Your task to perform on an android device: visit the assistant section in the google photos Image 0: 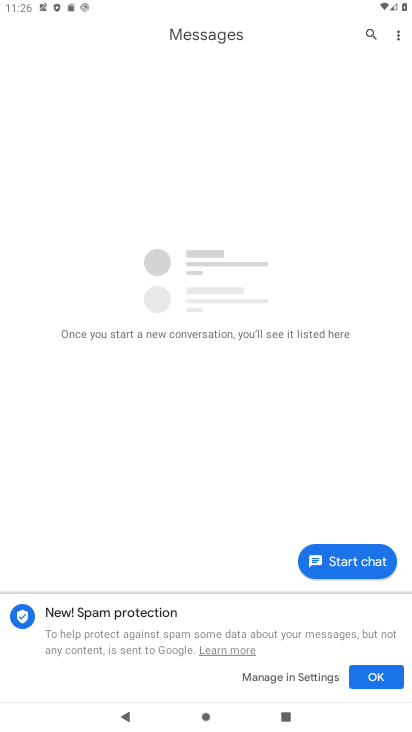
Step 0: press home button
Your task to perform on an android device: visit the assistant section in the google photos Image 1: 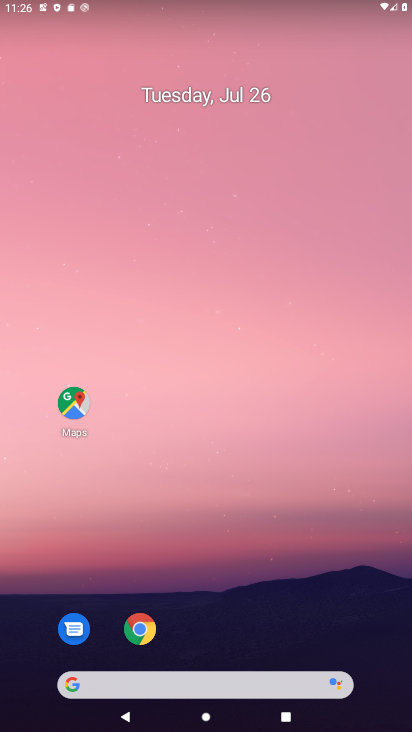
Step 1: drag from (276, 624) to (252, 95)
Your task to perform on an android device: visit the assistant section in the google photos Image 2: 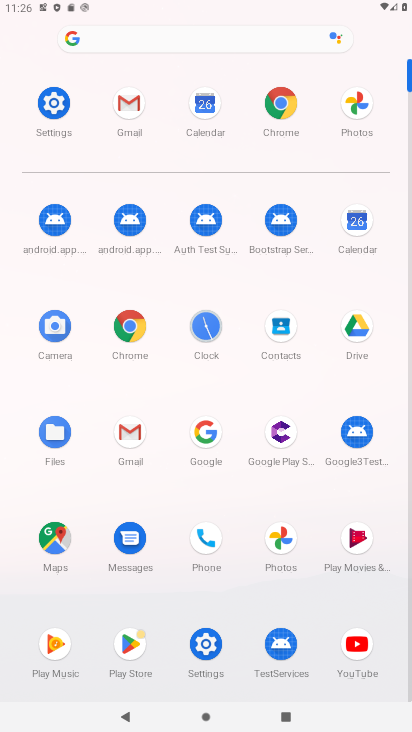
Step 2: click (288, 569)
Your task to perform on an android device: visit the assistant section in the google photos Image 3: 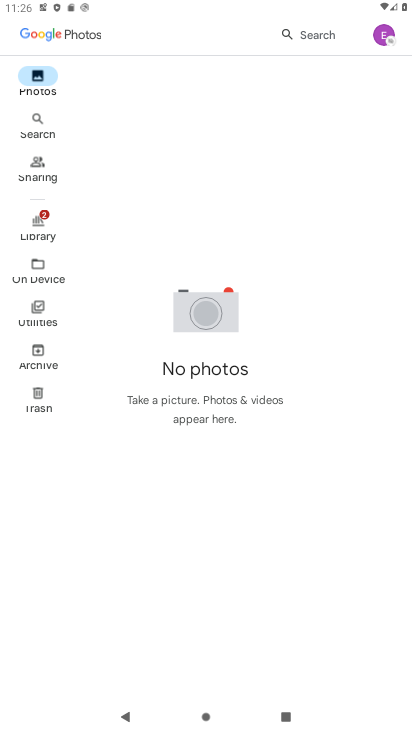
Step 3: task complete